Your task to perform on an android device: Search for the best selling books on Target. Image 0: 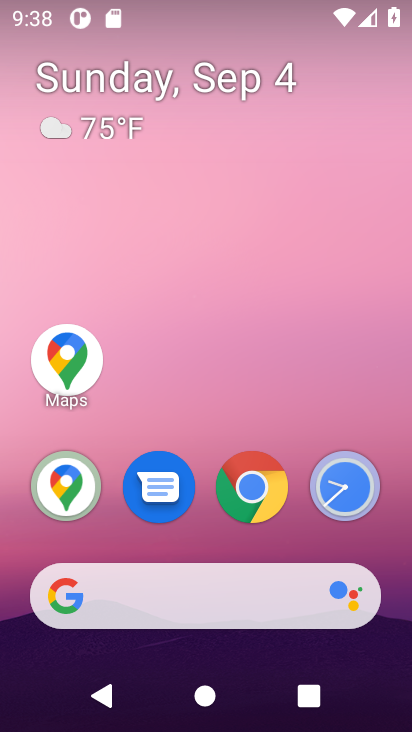
Step 0: click (84, 486)
Your task to perform on an android device: Search for the best selling books on Target. Image 1: 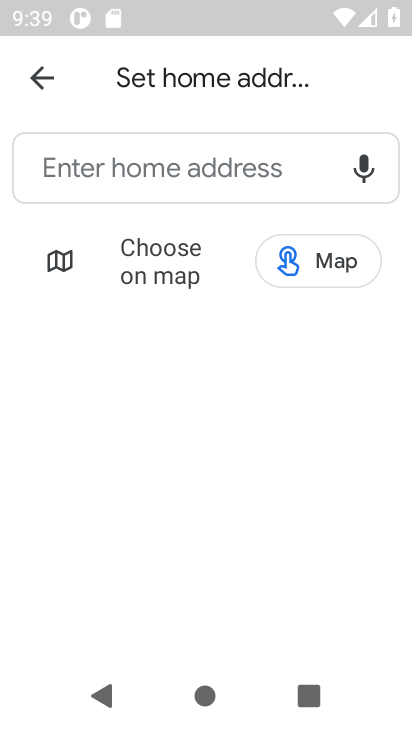
Step 1: click (289, 253)
Your task to perform on an android device: Search for the best selling books on Target. Image 2: 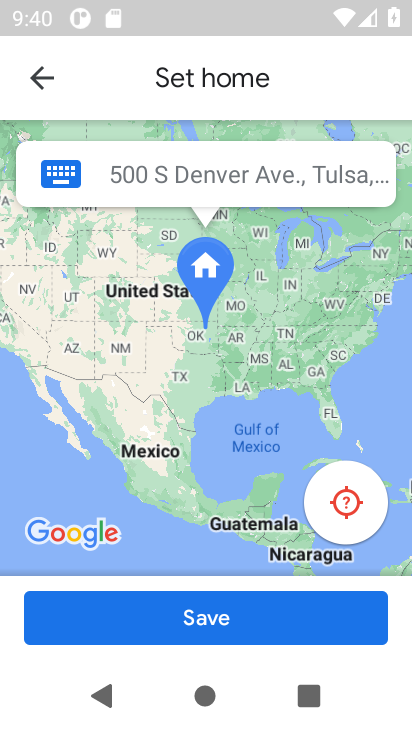
Step 2: click (207, 608)
Your task to perform on an android device: Search for the best selling books on Target. Image 3: 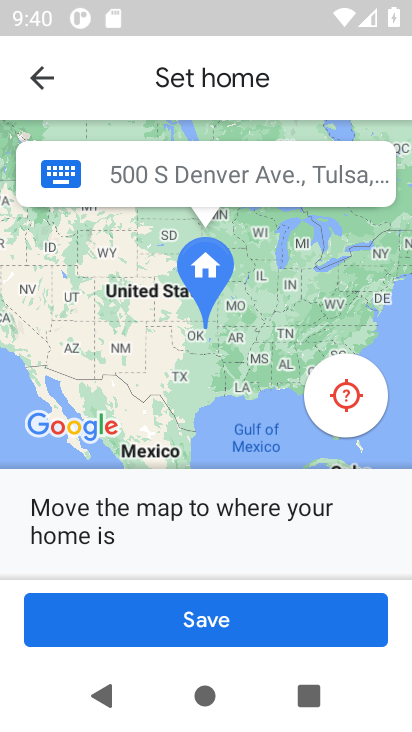
Step 3: task complete